Your task to perform on an android device: toggle data saver in the chrome app Image 0: 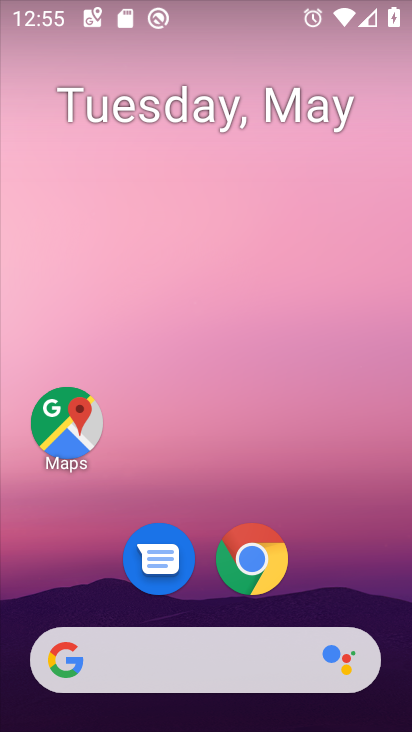
Step 0: click (269, 560)
Your task to perform on an android device: toggle data saver in the chrome app Image 1: 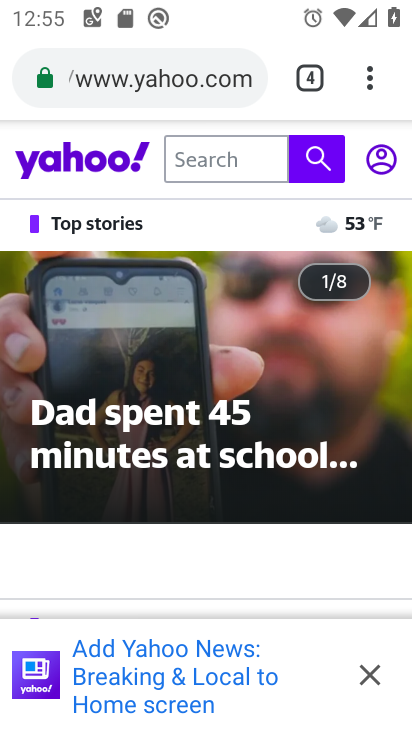
Step 1: click (369, 84)
Your task to perform on an android device: toggle data saver in the chrome app Image 2: 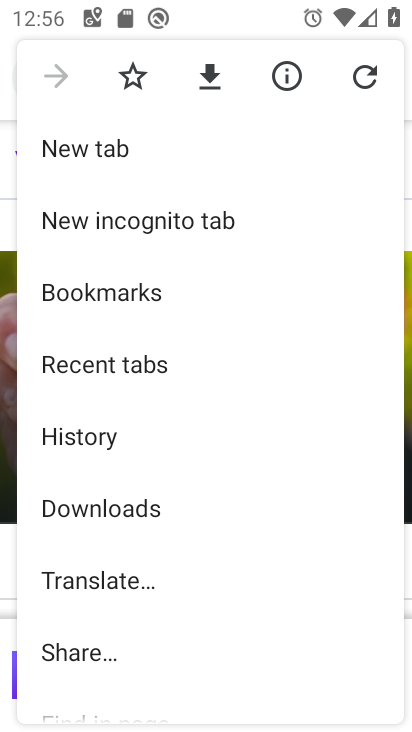
Step 2: drag from (223, 659) to (206, 243)
Your task to perform on an android device: toggle data saver in the chrome app Image 3: 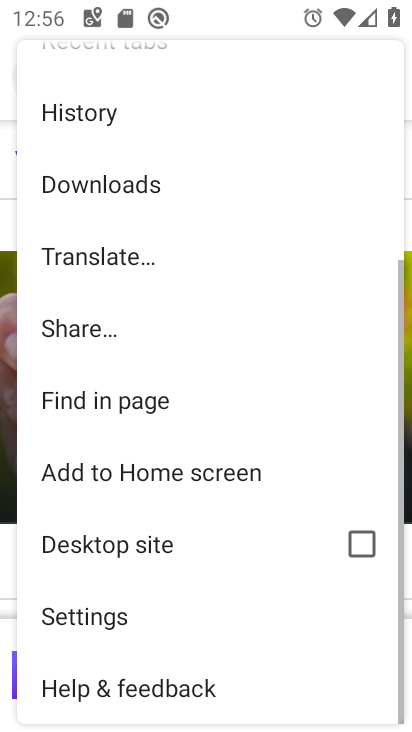
Step 3: click (176, 611)
Your task to perform on an android device: toggle data saver in the chrome app Image 4: 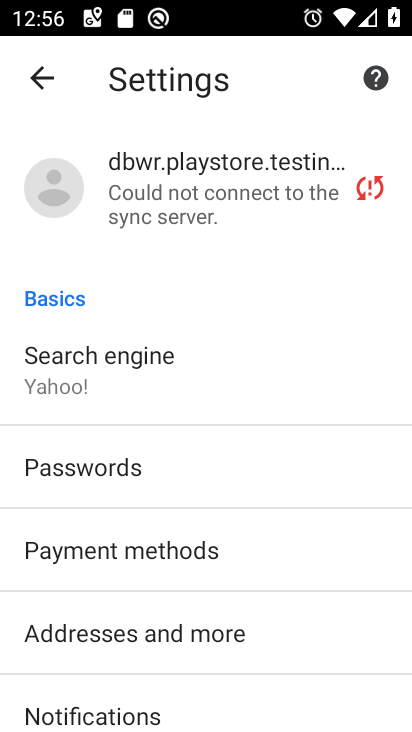
Step 4: drag from (226, 678) to (152, 236)
Your task to perform on an android device: toggle data saver in the chrome app Image 5: 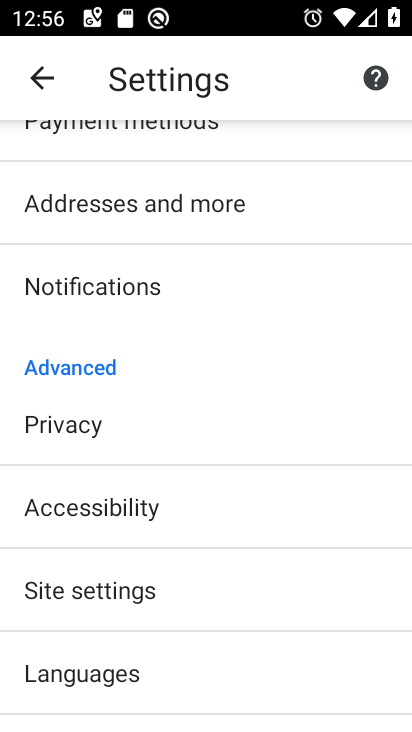
Step 5: drag from (190, 682) to (158, 390)
Your task to perform on an android device: toggle data saver in the chrome app Image 6: 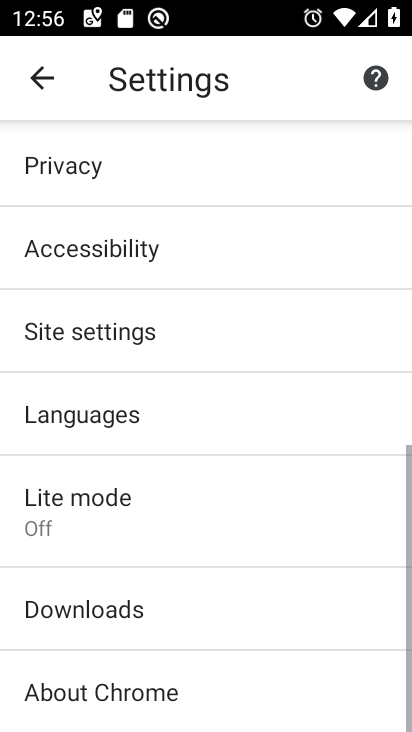
Step 6: click (151, 520)
Your task to perform on an android device: toggle data saver in the chrome app Image 7: 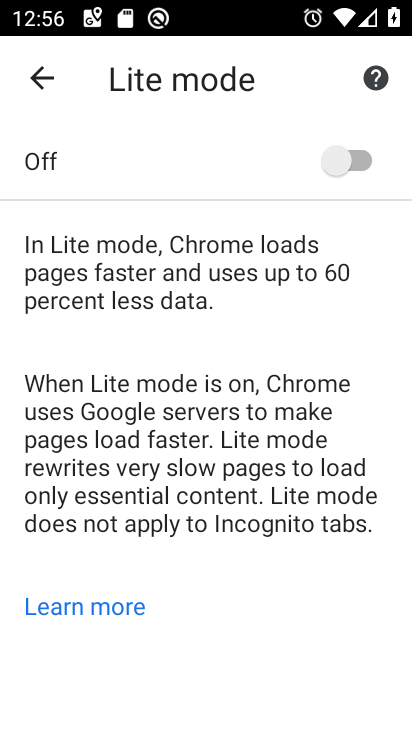
Step 7: click (363, 150)
Your task to perform on an android device: toggle data saver in the chrome app Image 8: 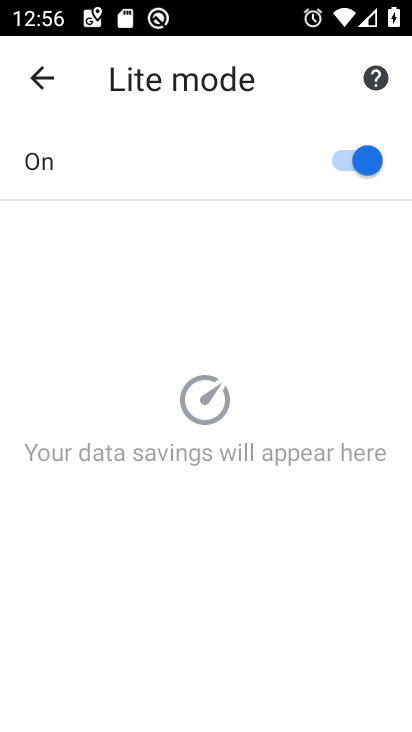
Step 8: task complete